Your task to perform on an android device: Add rayovac triple a to the cart on walmart, then select checkout. Image 0: 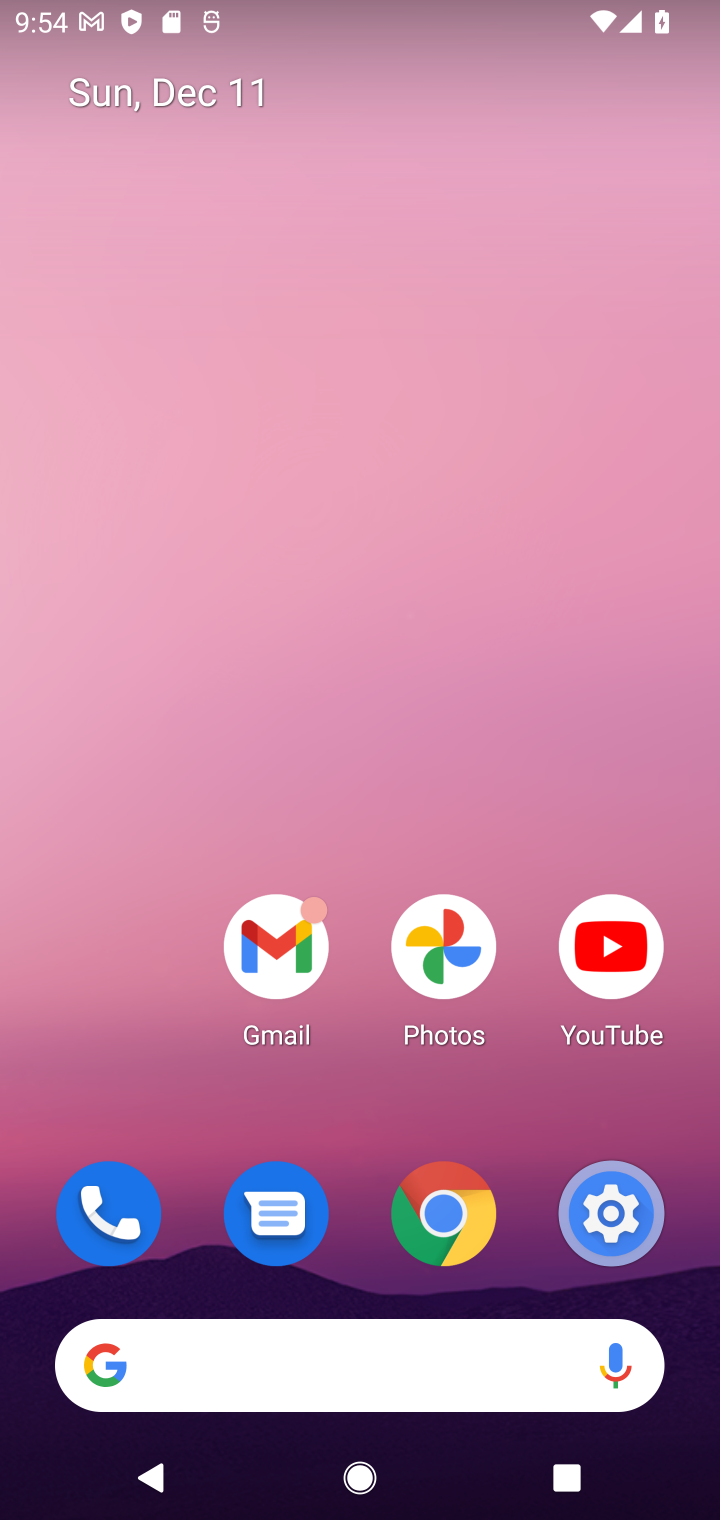
Step 0: click (395, 1351)
Your task to perform on an android device: Add rayovac triple a to the cart on walmart, then select checkout. Image 1: 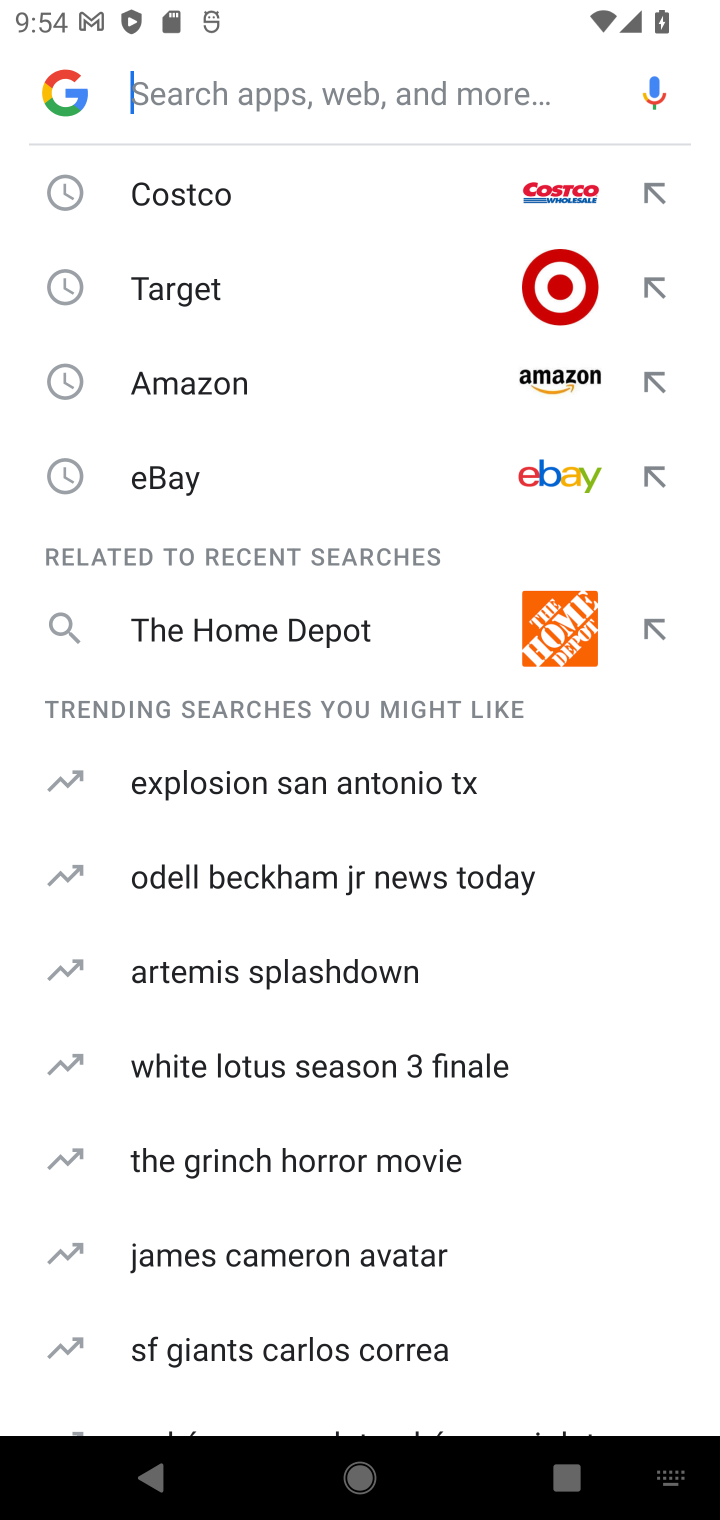
Step 1: type "walmart"
Your task to perform on an android device: Add rayovac triple a to the cart on walmart, then select checkout. Image 2: 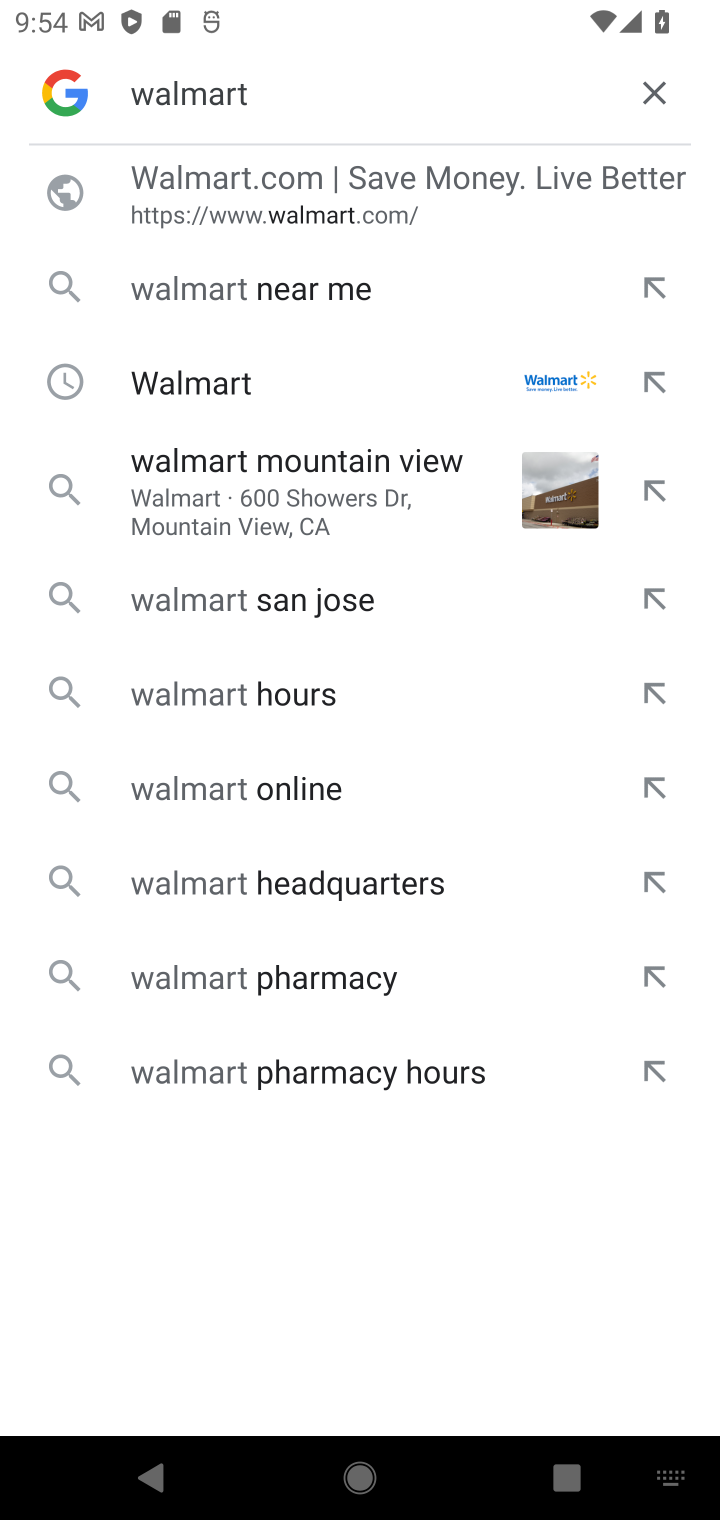
Step 2: click (270, 217)
Your task to perform on an android device: Add rayovac triple a to the cart on walmart, then select checkout. Image 3: 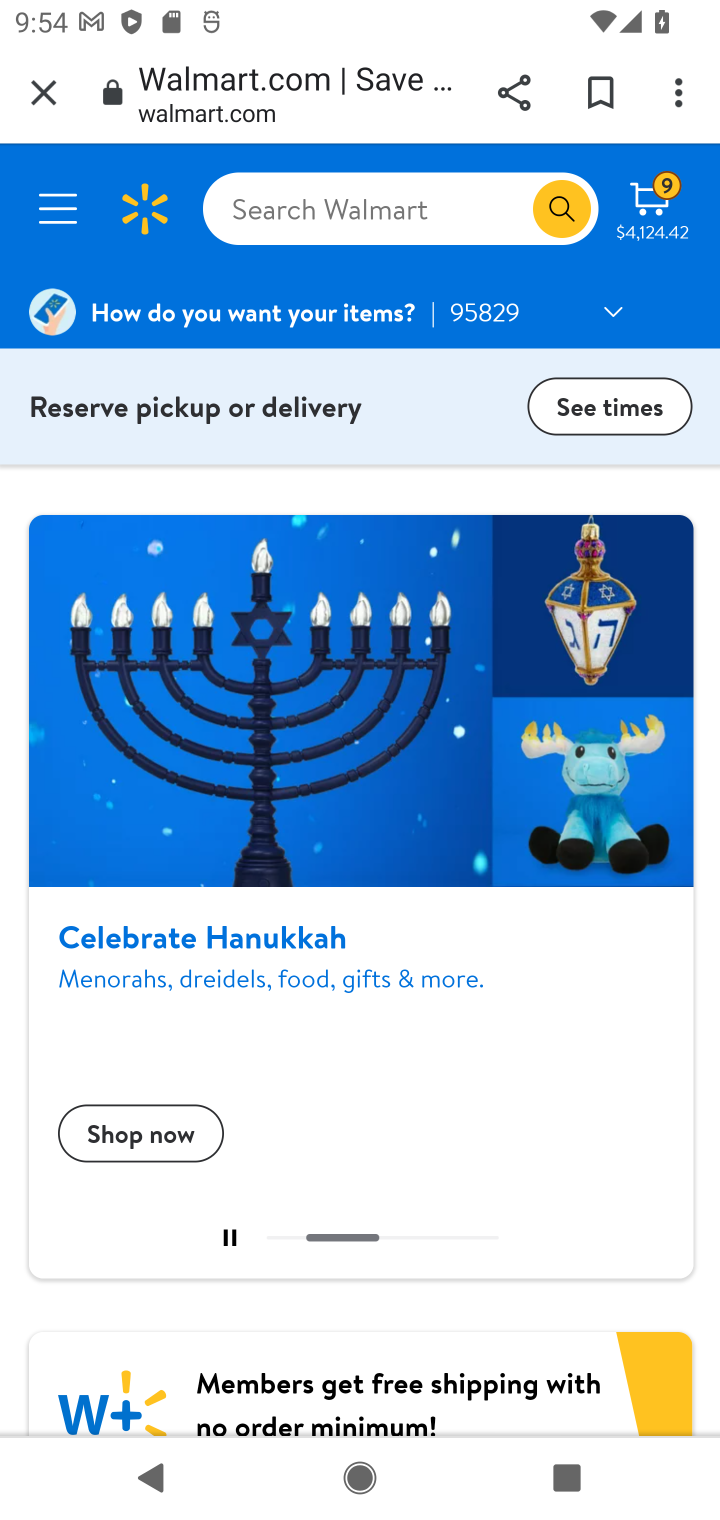
Step 3: click (279, 229)
Your task to perform on an android device: Add rayovac triple a to the cart on walmart, then select checkout. Image 4: 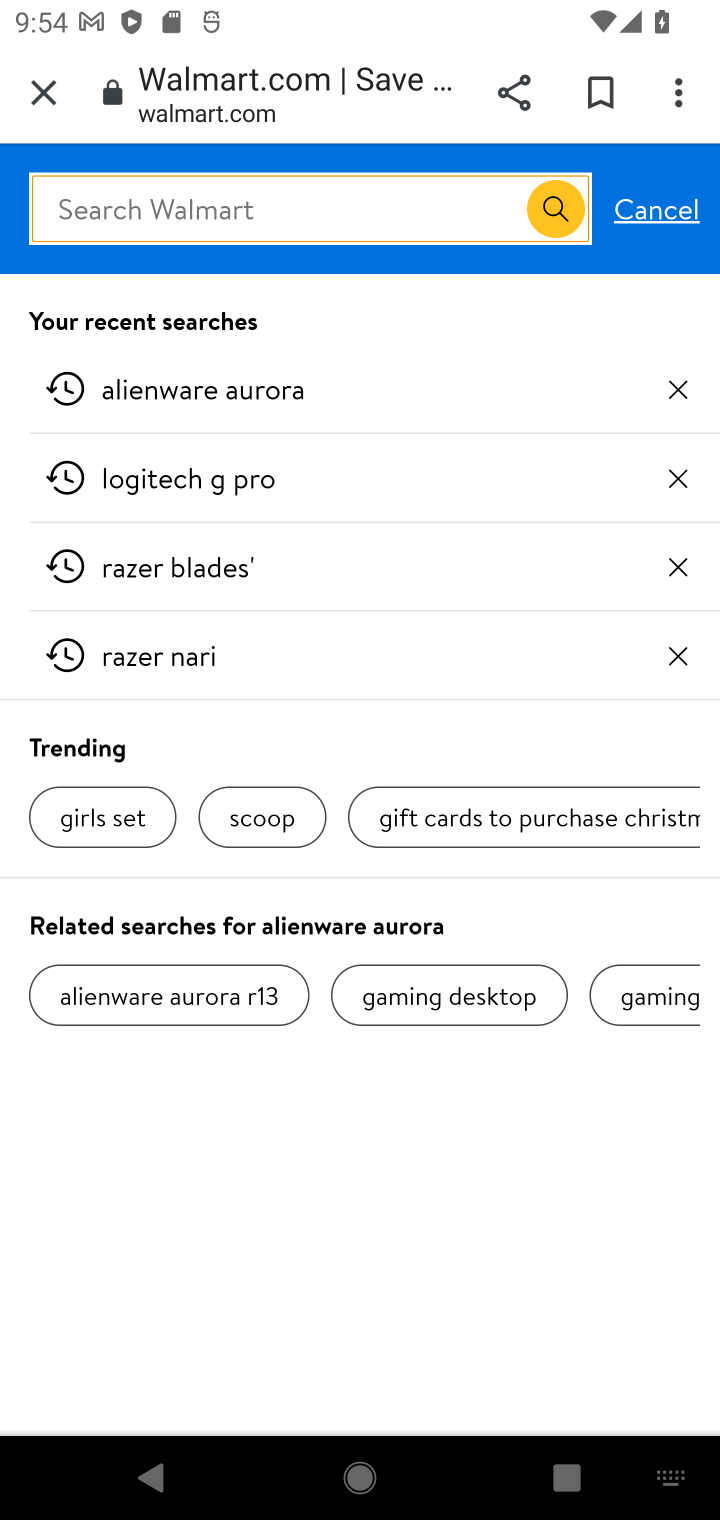
Step 4: type "rayovac triple a"
Your task to perform on an android device: Add rayovac triple a to the cart on walmart, then select checkout. Image 5: 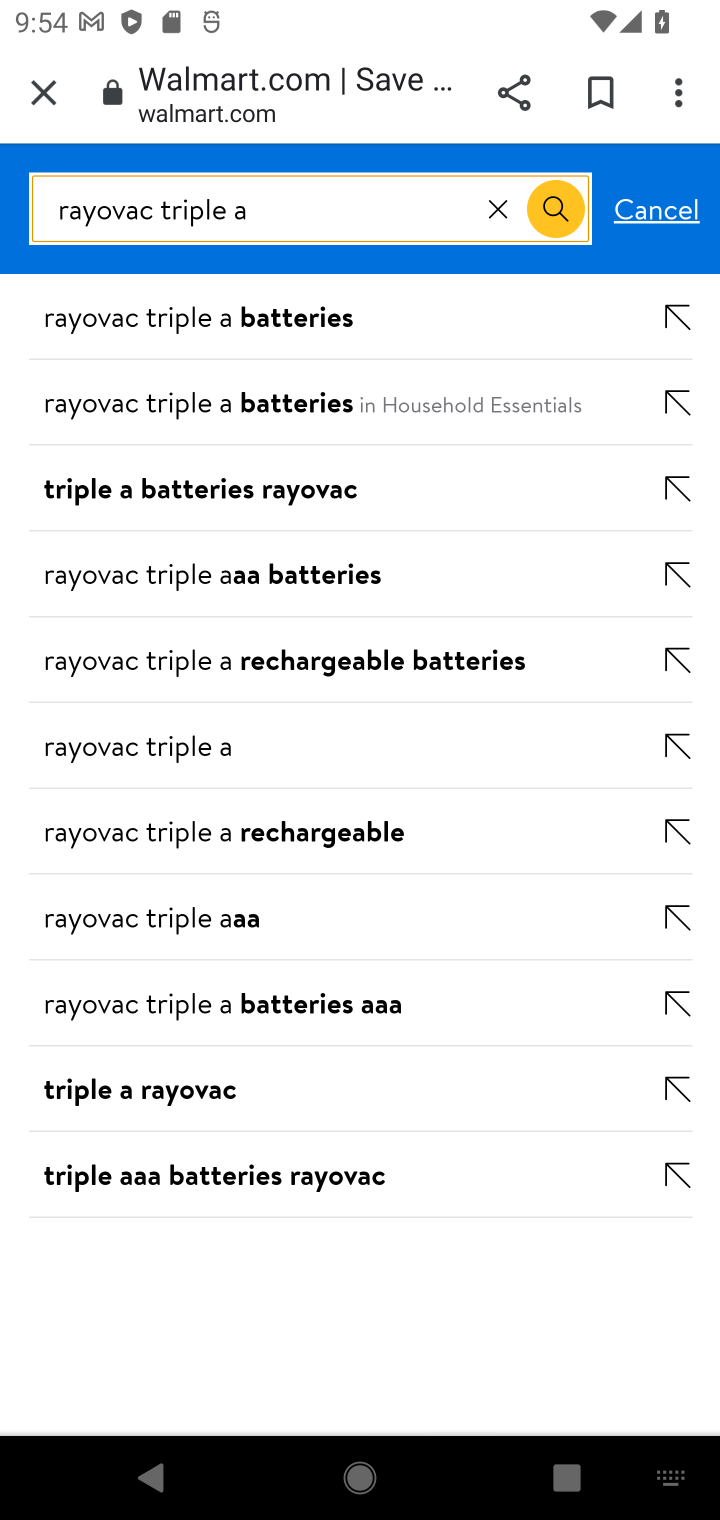
Step 5: click (295, 305)
Your task to perform on an android device: Add rayovac triple a to the cart on walmart, then select checkout. Image 6: 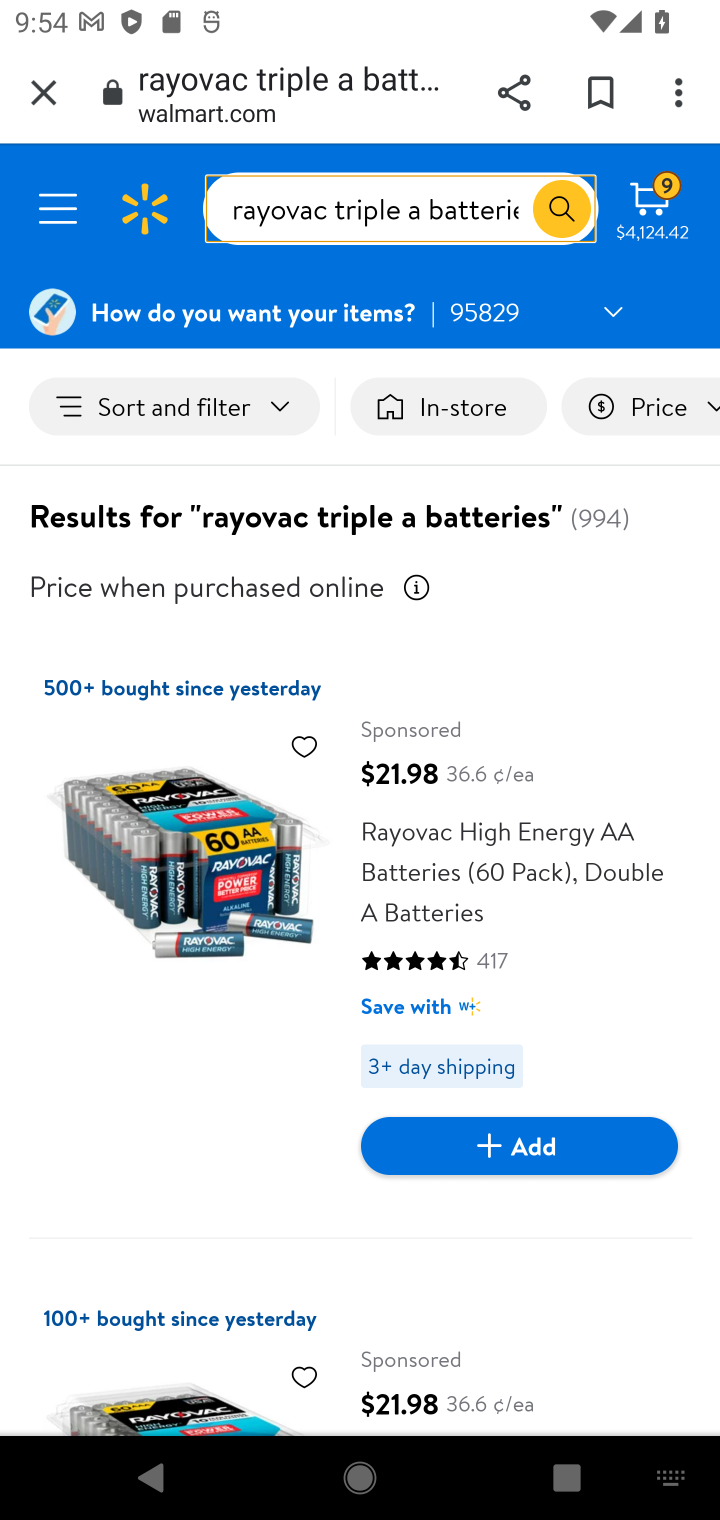
Step 6: click (464, 1126)
Your task to perform on an android device: Add rayovac triple a to the cart on walmart, then select checkout. Image 7: 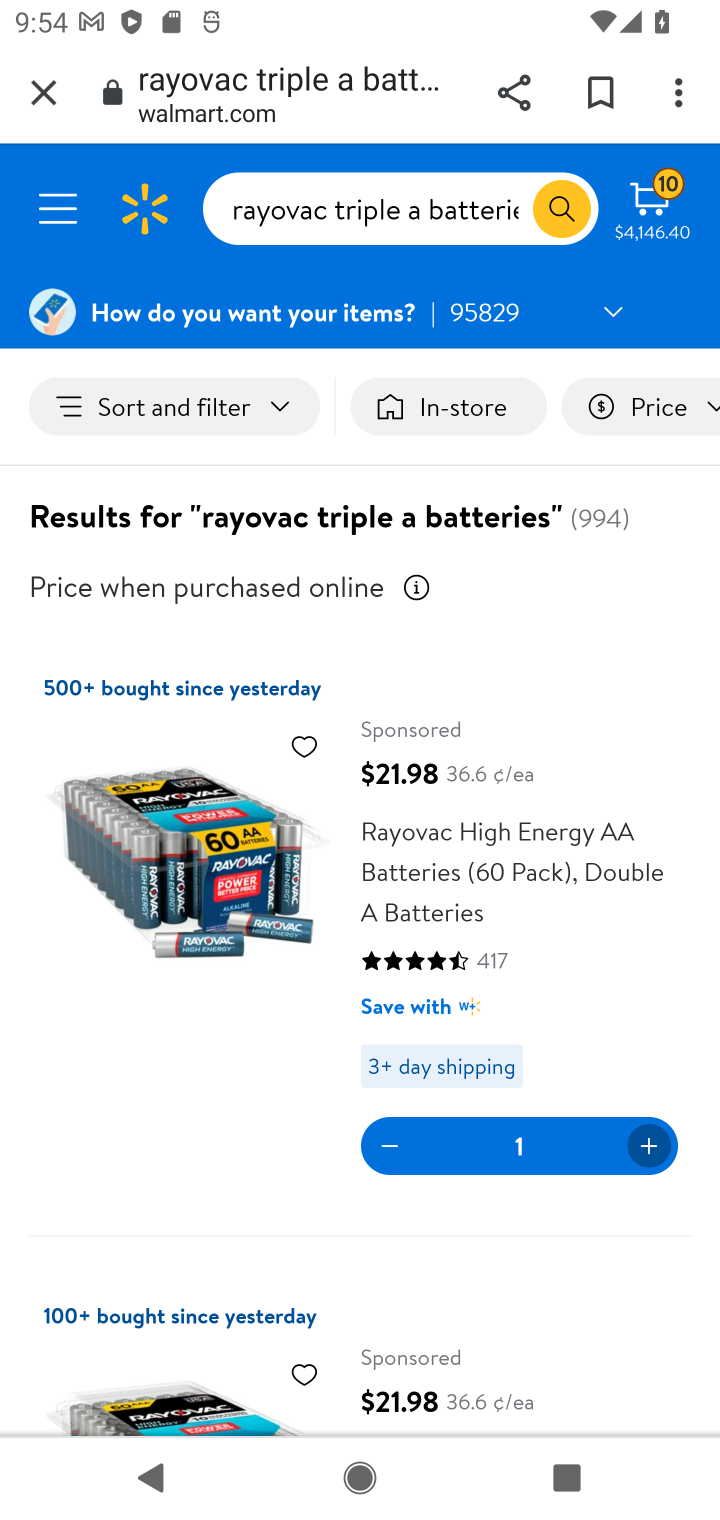
Step 7: task complete